Your task to perform on an android device: Open the stopwatch Image 0: 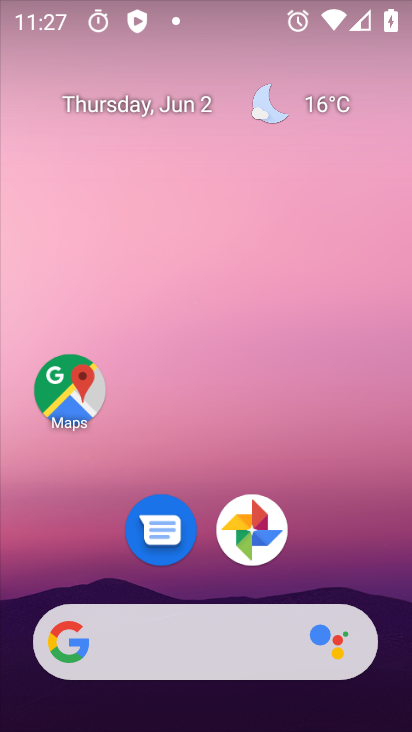
Step 0: drag from (255, 647) to (184, 153)
Your task to perform on an android device: Open the stopwatch Image 1: 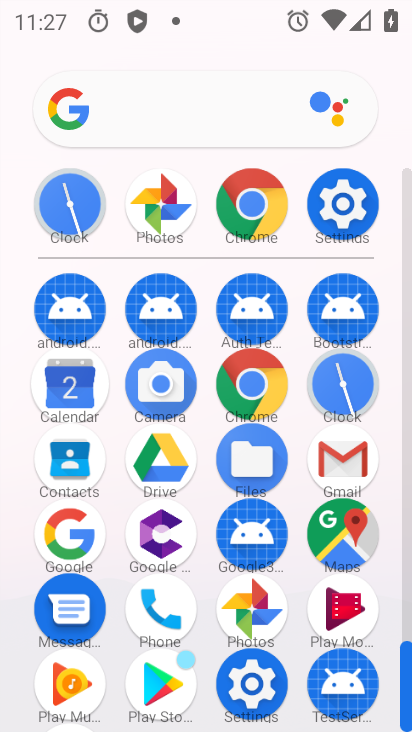
Step 1: click (343, 396)
Your task to perform on an android device: Open the stopwatch Image 2: 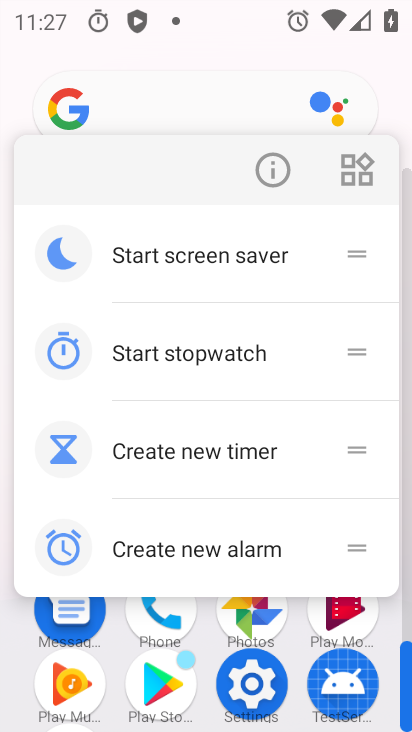
Step 2: click (214, 352)
Your task to perform on an android device: Open the stopwatch Image 3: 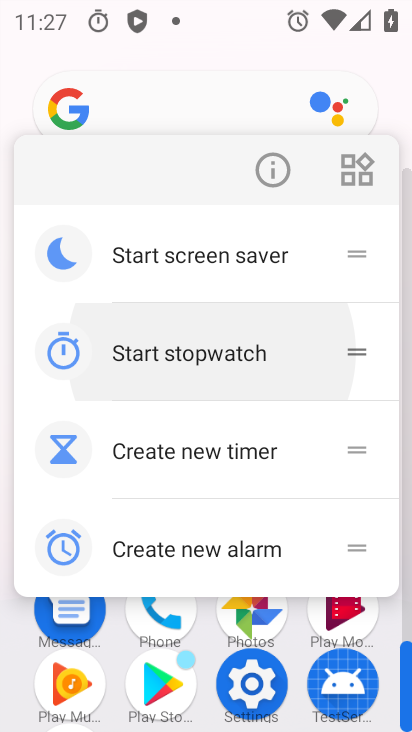
Step 3: click (214, 352)
Your task to perform on an android device: Open the stopwatch Image 4: 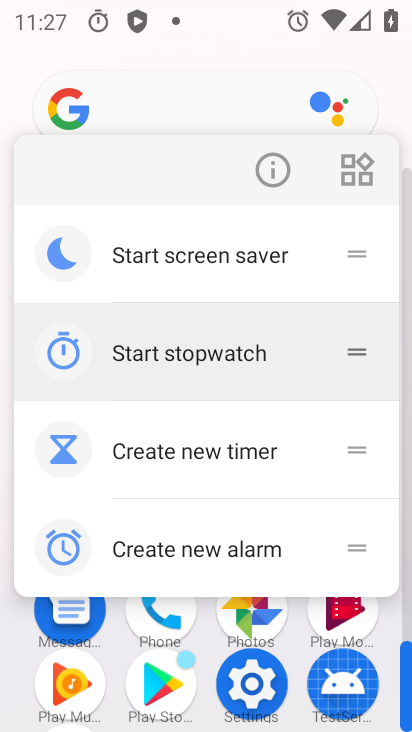
Step 4: click (214, 352)
Your task to perform on an android device: Open the stopwatch Image 5: 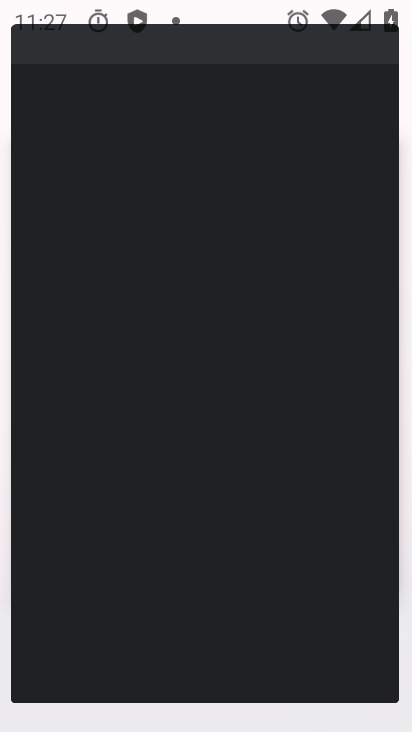
Step 5: click (214, 352)
Your task to perform on an android device: Open the stopwatch Image 6: 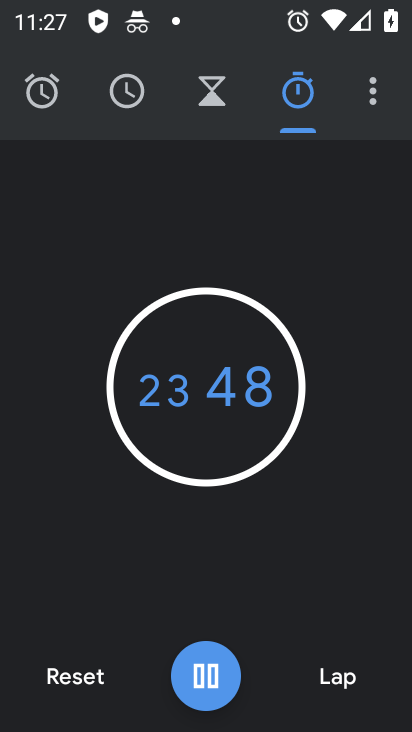
Step 6: click (196, 681)
Your task to perform on an android device: Open the stopwatch Image 7: 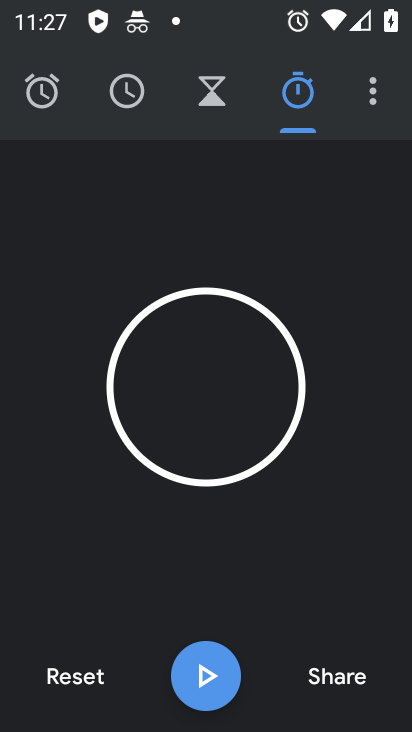
Step 7: task complete